Your task to perform on an android device: star an email in the gmail app Image 0: 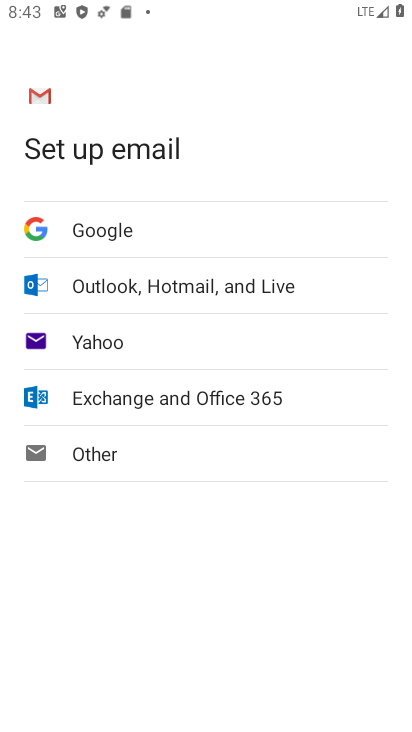
Step 0: press home button
Your task to perform on an android device: star an email in the gmail app Image 1: 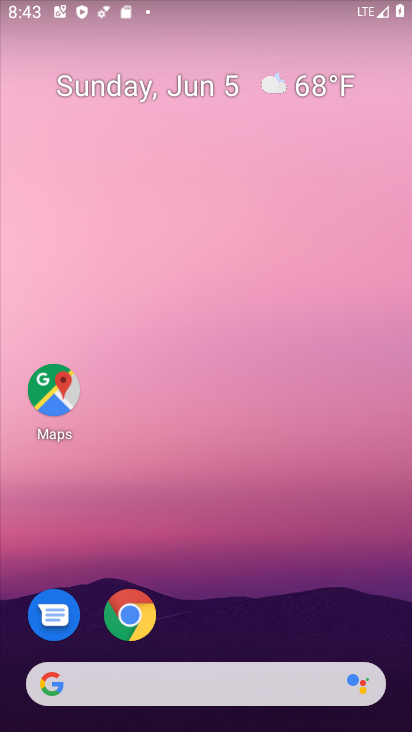
Step 1: drag from (260, 651) to (314, 211)
Your task to perform on an android device: star an email in the gmail app Image 2: 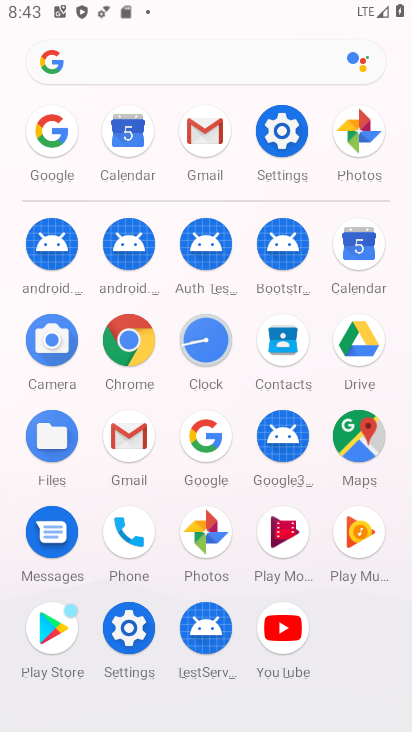
Step 2: click (126, 444)
Your task to perform on an android device: star an email in the gmail app Image 3: 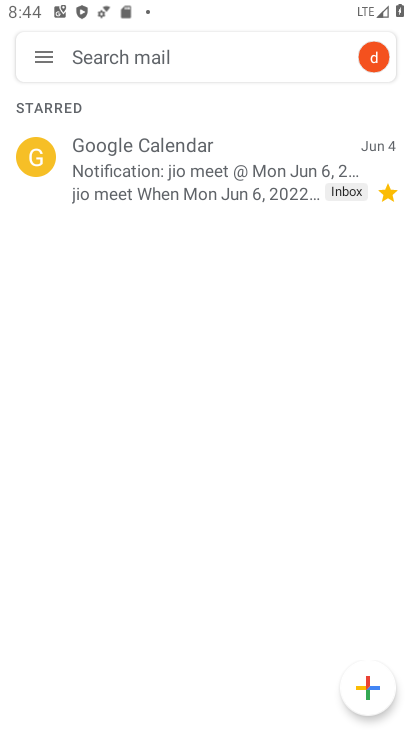
Step 3: click (53, 60)
Your task to perform on an android device: star an email in the gmail app Image 4: 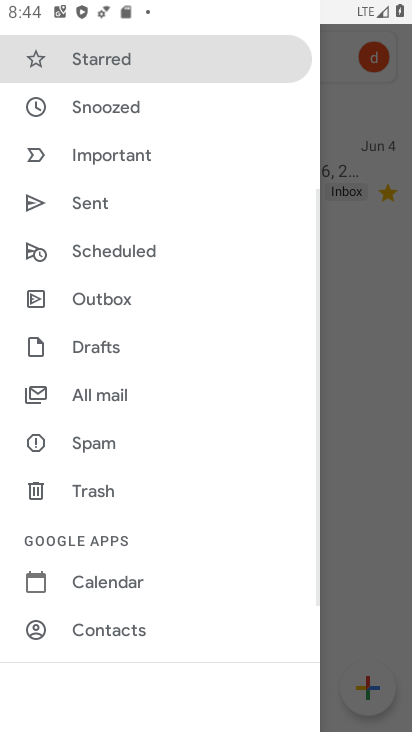
Step 4: drag from (87, 107) to (91, 367)
Your task to perform on an android device: star an email in the gmail app Image 5: 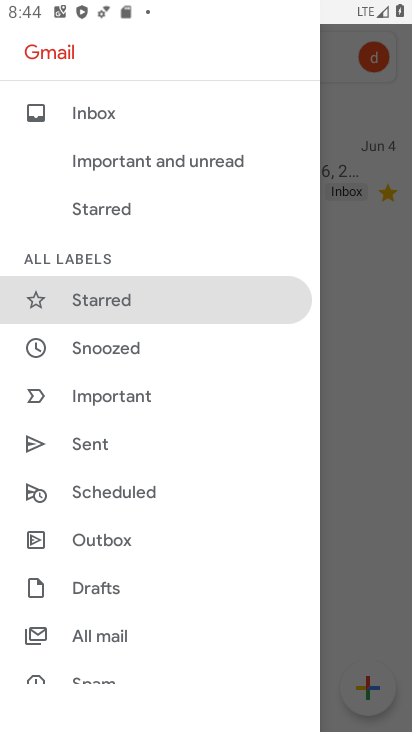
Step 5: click (92, 623)
Your task to perform on an android device: star an email in the gmail app Image 6: 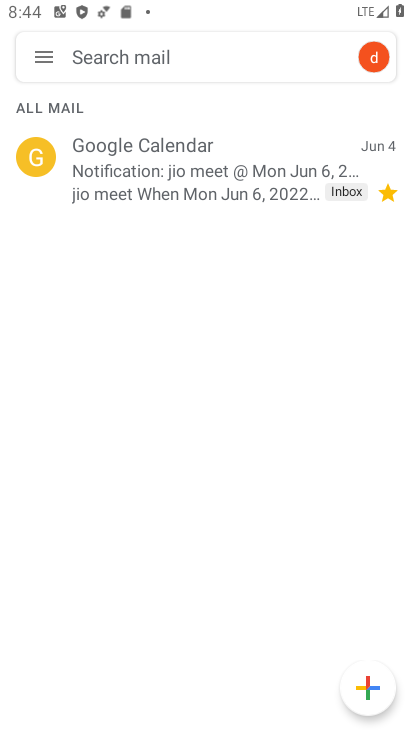
Step 6: task complete